Your task to perform on an android device: turn off data saver in the chrome app Image 0: 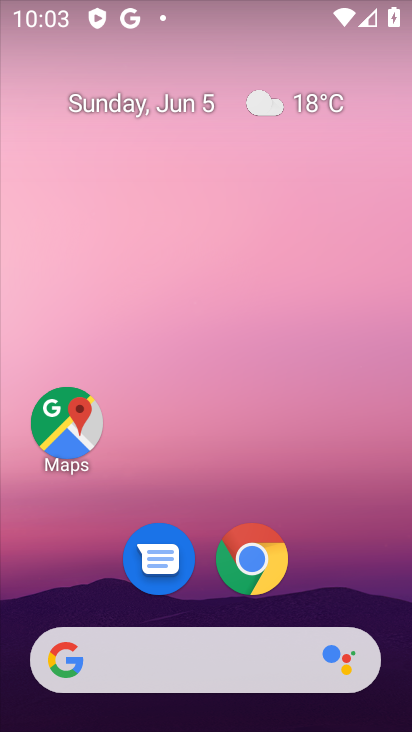
Step 0: click (324, 66)
Your task to perform on an android device: turn off data saver in the chrome app Image 1: 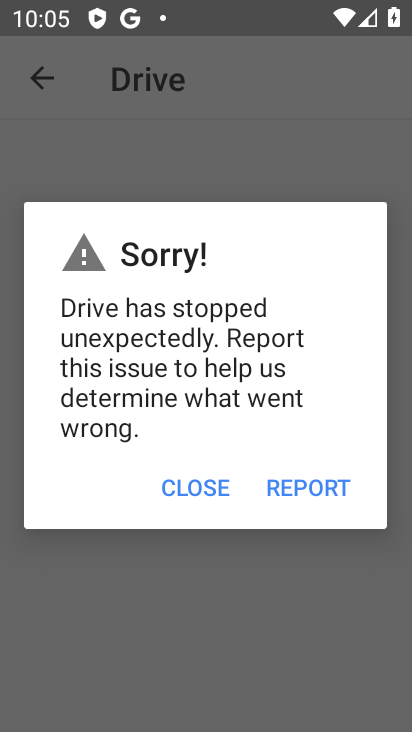
Step 1: click (199, 492)
Your task to perform on an android device: turn off data saver in the chrome app Image 2: 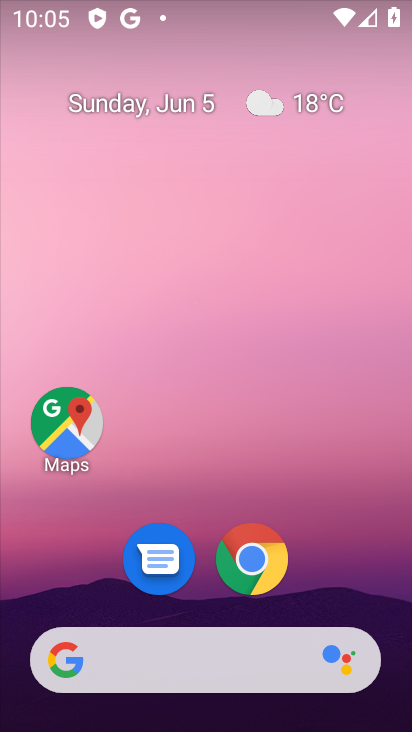
Step 2: press home button
Your task to perform on an android device: turn off data saver in the chrome app Image 3: 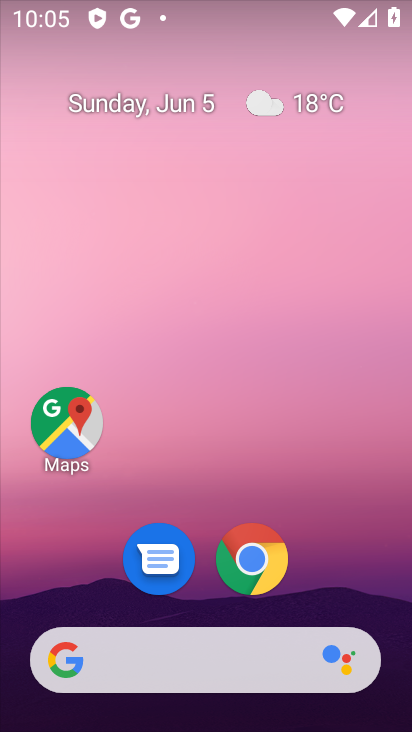
Step 3: click (262, 548)
Your task to perform on an android device: turn off data saver in the chrome app Image 4: 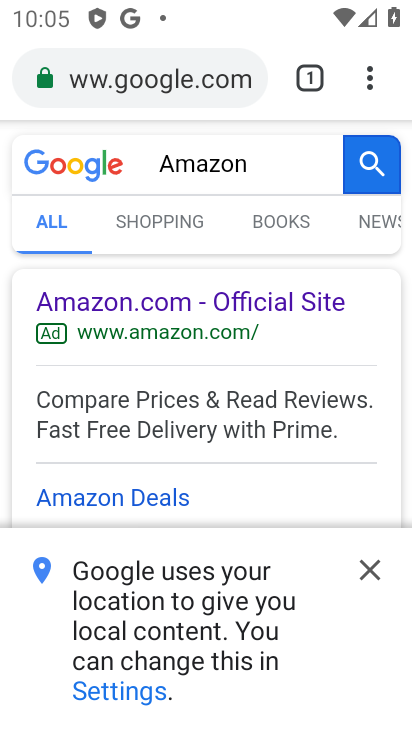
Step 4: click (367, 75)
Your task to perform on an android device: turn off data saver in the chrome app Image 5: 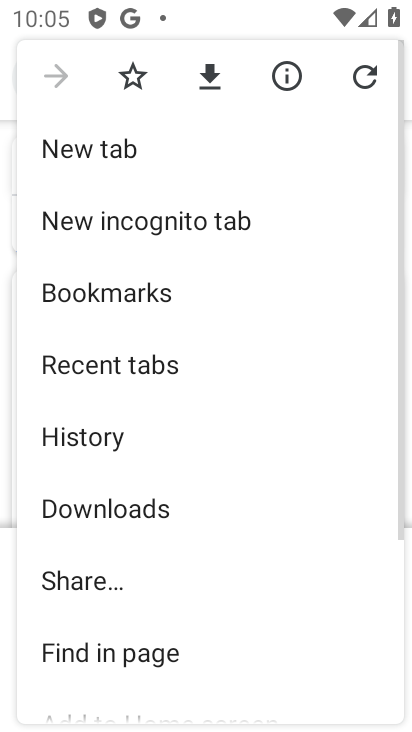
Step 5: drag from (227, 649) to (200, 346)
Your task to perform on an android device: turn off data saver in the chrome app Image 6: 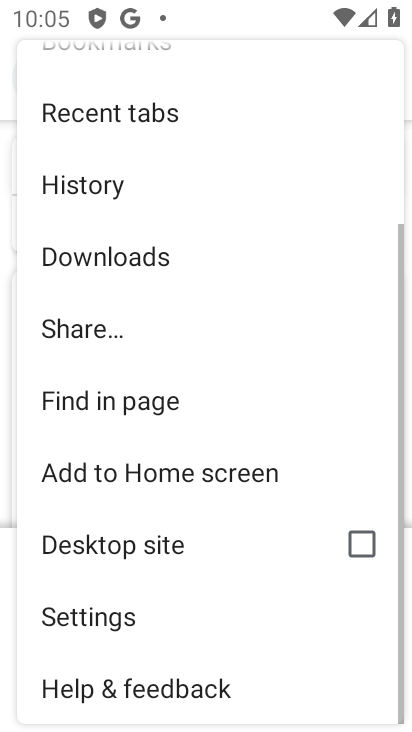
Step 6: click (70, 613)
Your task to perform on an android device: turn off data saver in the chrome app Image 7: 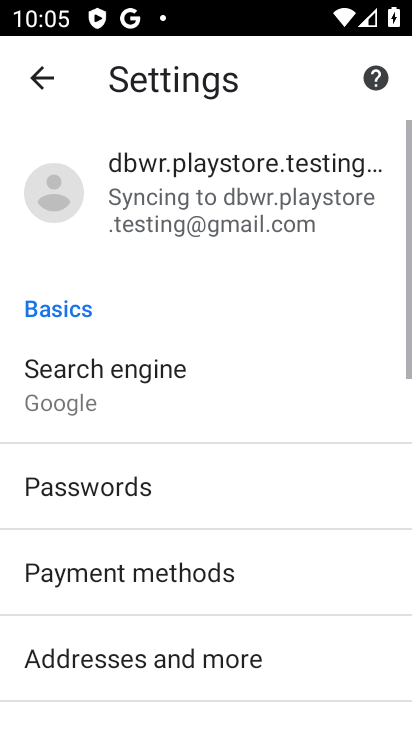
Step 7: drag from (281, 691) to (177, 109)
Your task to perform on an android device: turn off data saver in the chrome app Image 8: 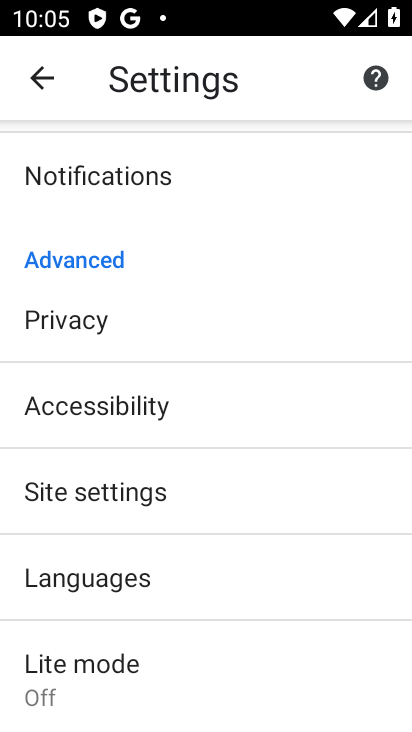
Step 8: click (115, 659)
Your task to perform on an android device: turn off data saver in the chrome app Image 9: 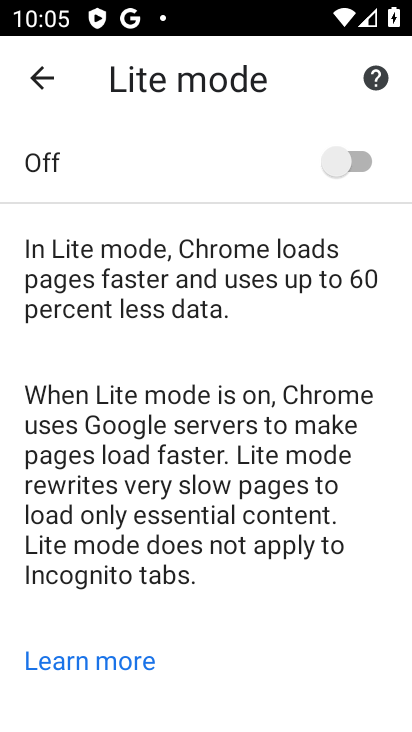
Step 9: task complete